Your task to perform on an android device: turn pop-ups off in chrome Image 0: 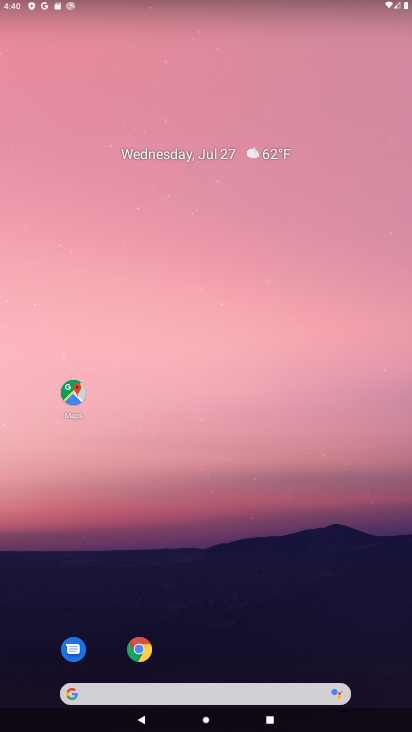
Step 0: click (141, 655)
Your task to perform on an android device: turn pop-ups off in chrome Image 1: 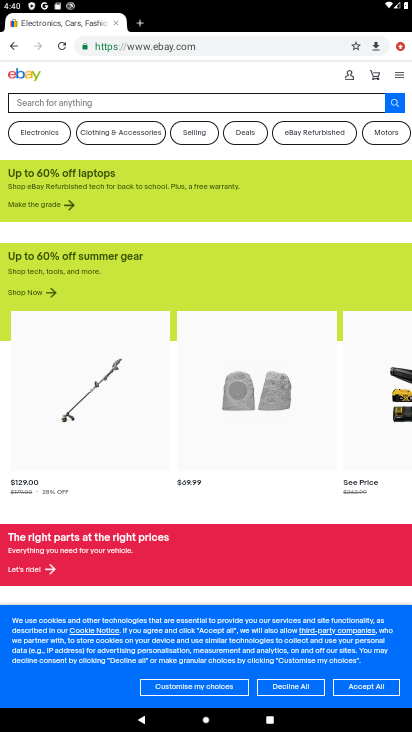
Step 1: task complete